Your task to perform on an android device: open wifi settings Image 0: 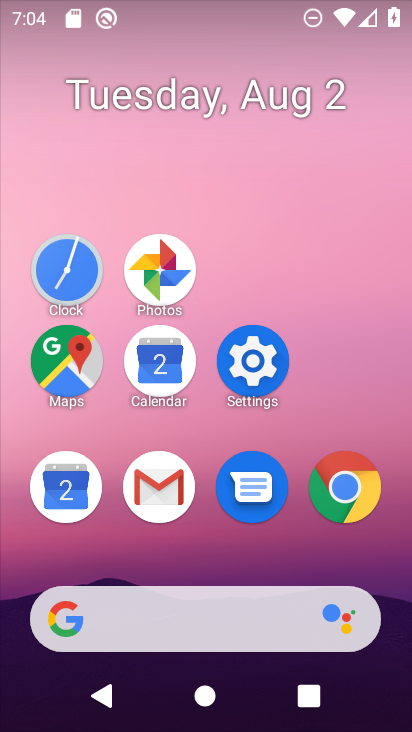
Step 0: click (259, 359)
Your task to perform on an android device: open wifi settings Image 1: 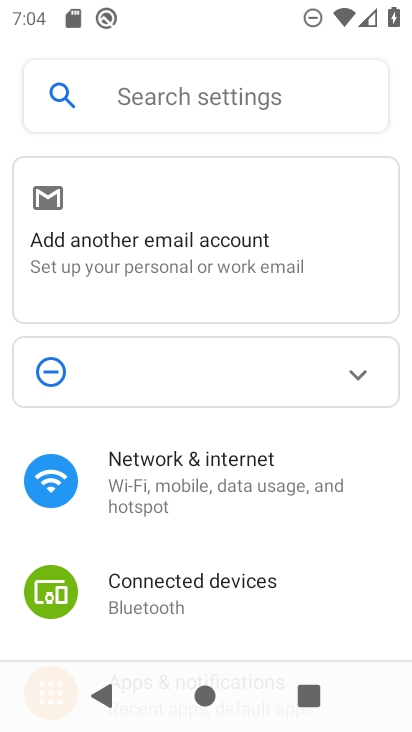
Step 1: click (172, 474)
Your task to perform on an android device: open wifi settings Image 2: 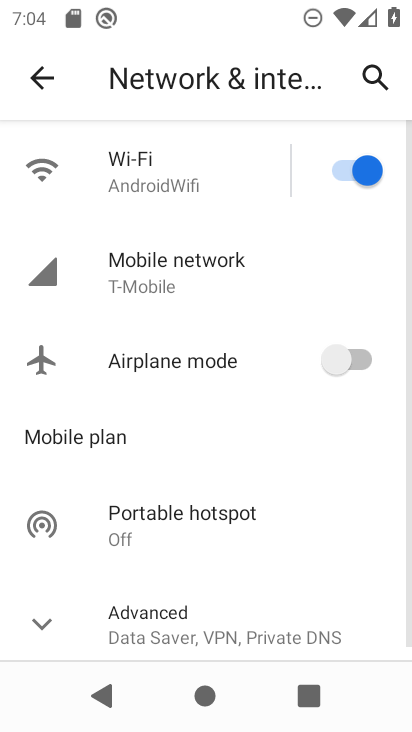
Step 2: click (142, 154)
Your task to perform on an android device: open wifi settings Image 3: 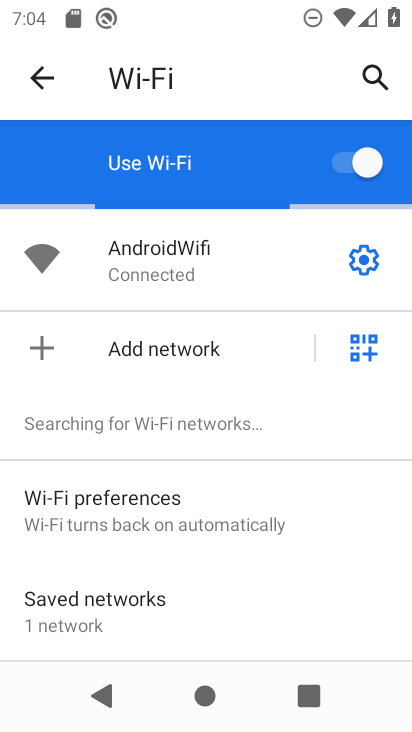
Step 3: task complete